Your task to perform on an android device: turn off picture-in-picture Image 0: 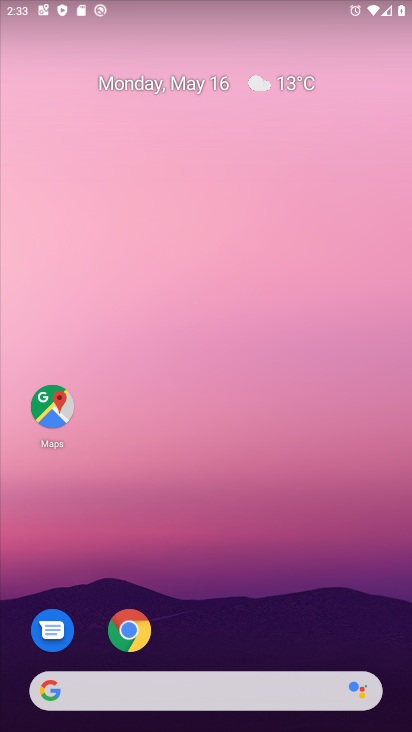
Step 0: drag from (216, 584) to (216, 143)
Your task to perform on an android device: turn off picture-in-picture Image 1: 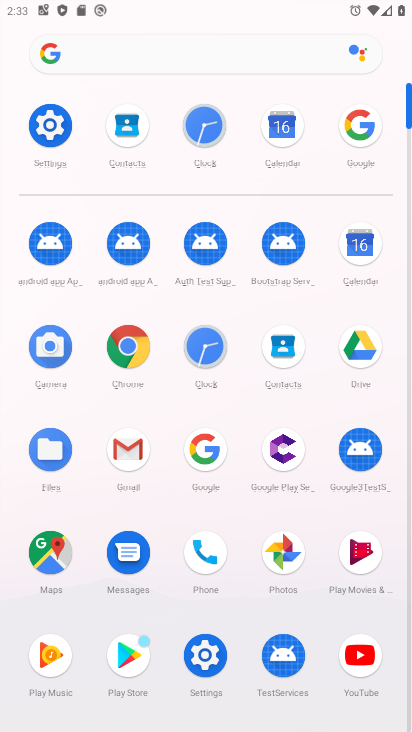
Step 1: click (46, 136)
Your task to perform on an android device: turn off picture-in-picture Image 2: 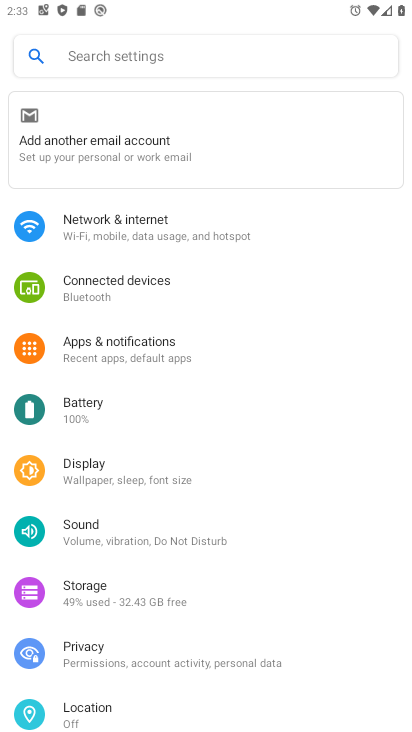
Step 2: click (125, 354)
Your task to perform on an android device: turn off picture-in-picture Image 3: 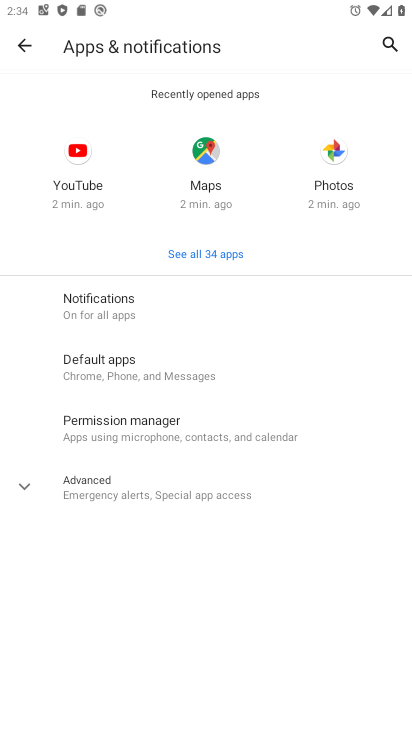
Step 3: click (119, 487)
Your task to perform on an android device: turn off picture-in-picture Image 4: 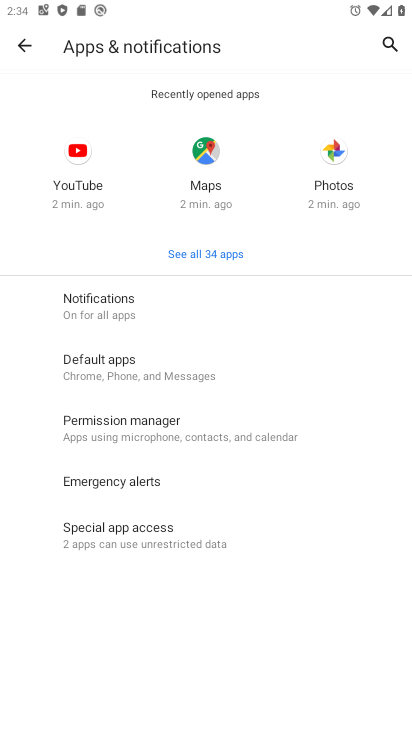
Step 4: click (145, 532)
Your task to perform on an android device: turn off picture-in-picture Image 5: 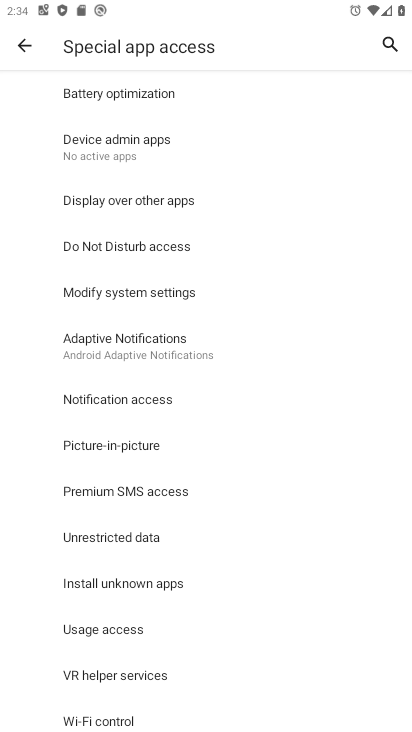
Step 5: click (136, 447)
Your task to perform on an android device: turn off picture-in-picture Image 6: 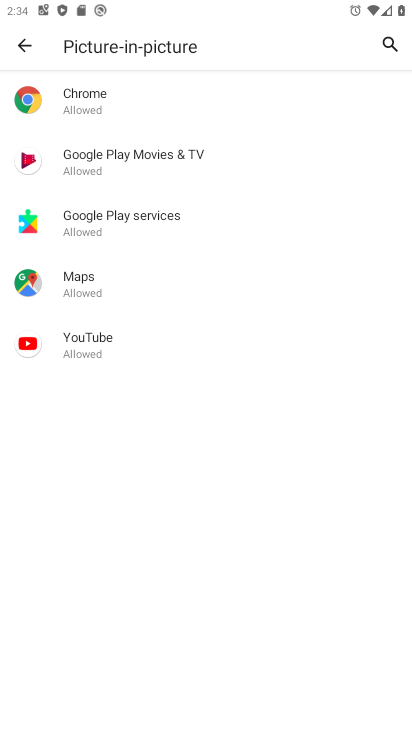
Step 6: click (99, 99)
Your task to perform on an android device: turn off picture-in-picture Image 7: 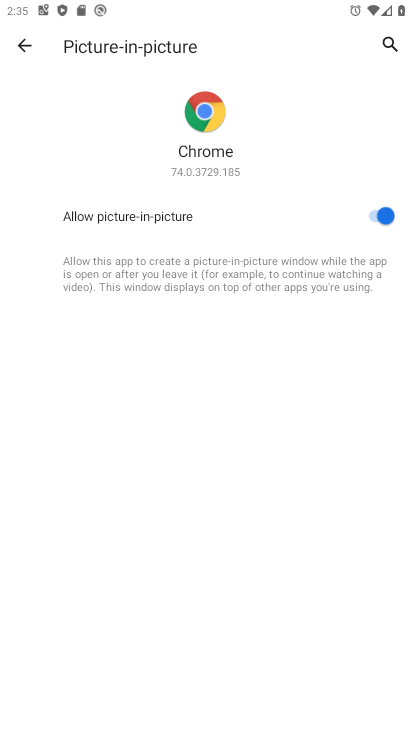
Step 7: click (375, 210)
Your task to perform on an android device: turn off picture-in-picture Image 8: 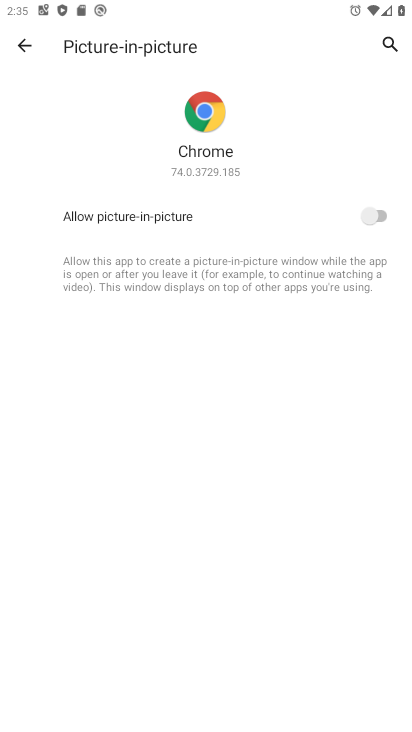
Step 8: click (21, 41)
Your task to perform on an android device: turn off picture-in-picture Image 9: 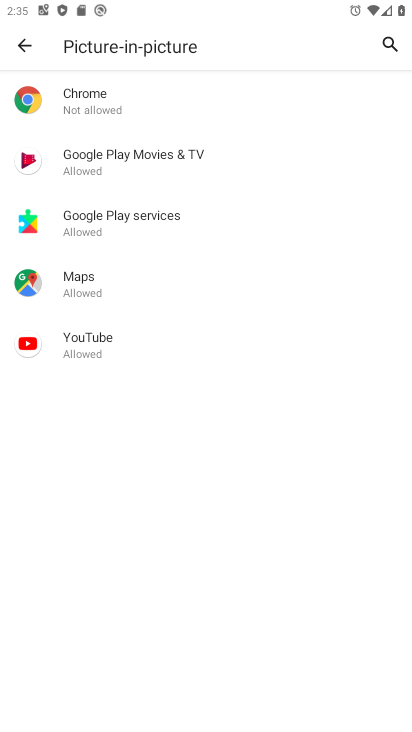
Step 9: click (138, 153)
Your task to perform on an android device: turn off picture-in-picture Image 10: 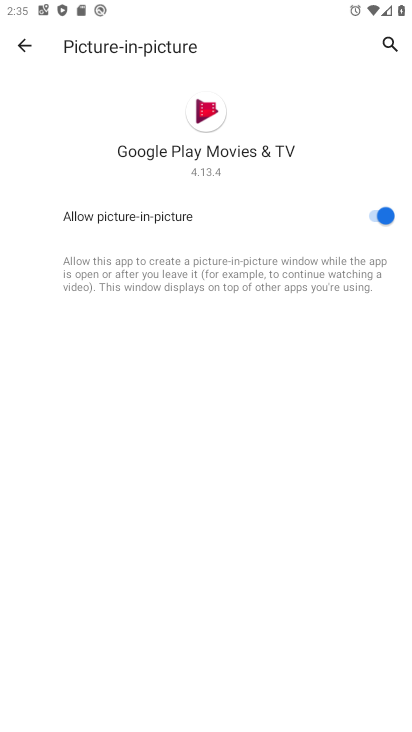
Step 10: click (372, 214)
Your task to perform on an android device: turn off picture-in-picture Image 11: 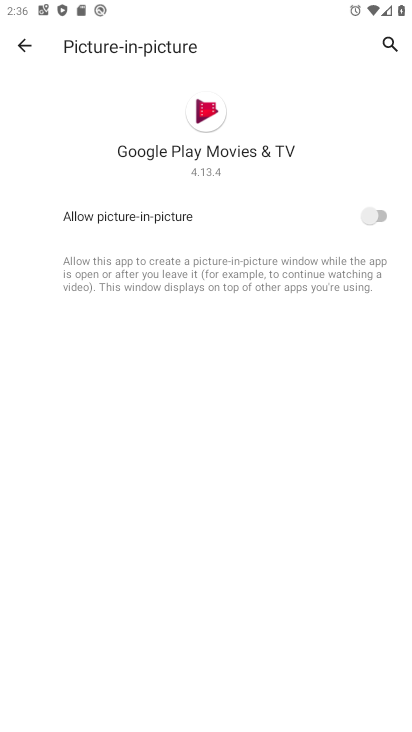
Step 11: click (20, 46)
Your task to perform on an android device: turn off picture-in-picture Image 12: 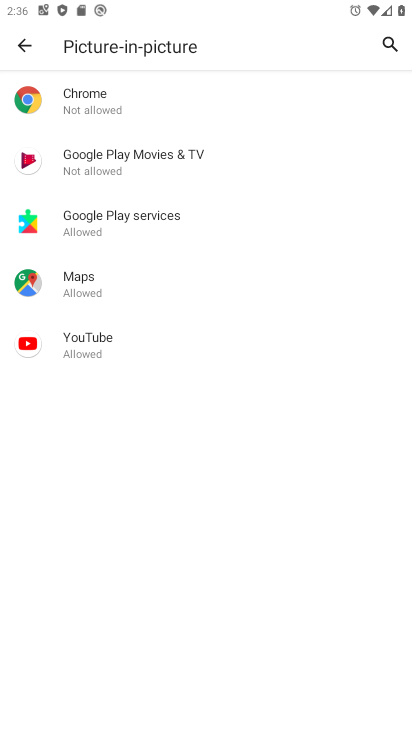
Step 12: click (161, 217)
Your task to perform on an android device: turn off picture-in-picture Image 13: 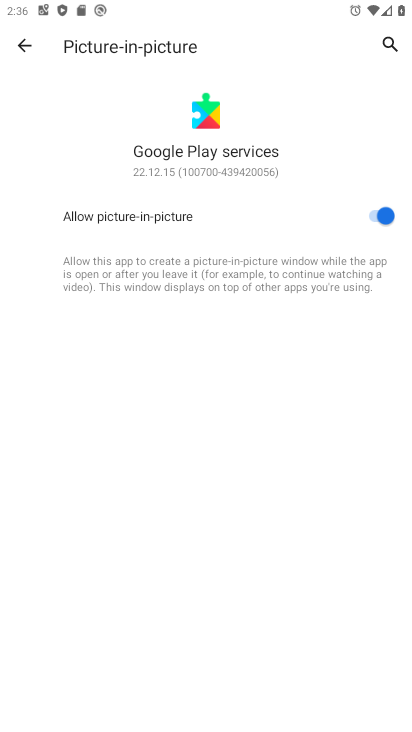
Step 13: click (371, 214)
Your task to perform on an android device: turn off picture-in-picture Image 14: 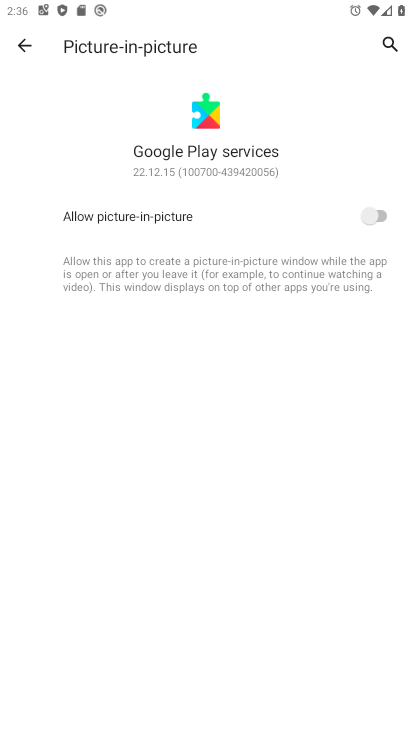
Step 14: click (19, 45)
Your task to perform on an android device: turn off picture-in-picture Image 15: 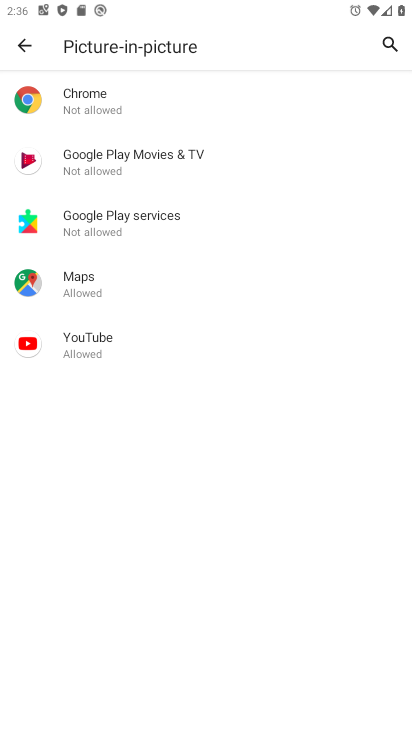
Step 15: click (93, 276)
Your task to perform on an android device: turn off picture-in-picture Image 16: 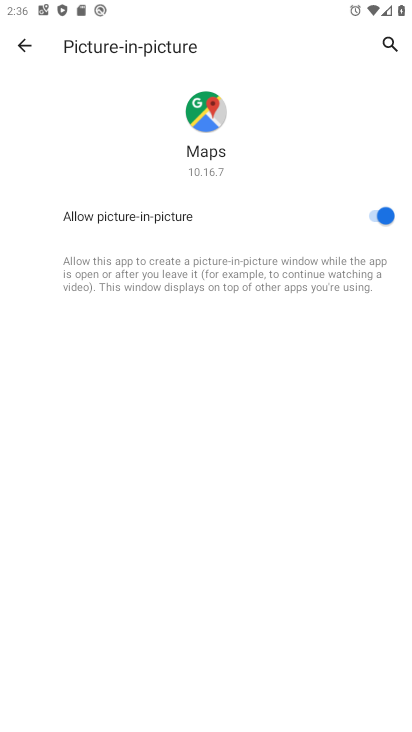
Step 16: click (378, 216)
Your task to perform on an android device: turn off picture-in-picture Image 17: 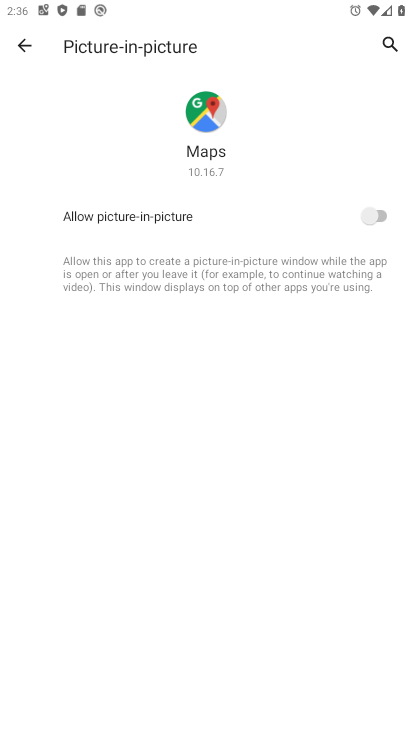
Step 17: click (21, 40)
Your task to perform on an android device: turn off picture-in-picture Image 18: 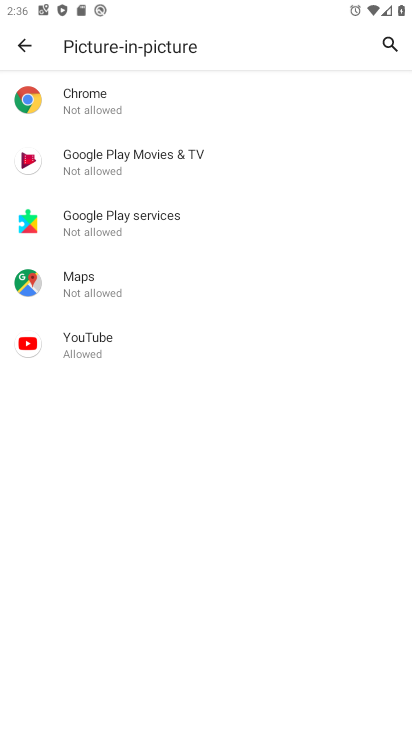
Step 18: click (89, 332)
Your task to perform on an android device: turn off picture-in-picture Image 19: 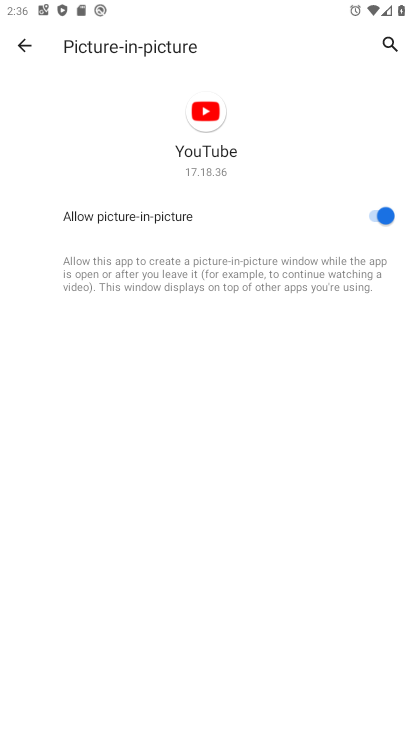
Step 19: click (378, 211)
Your task to perform on an android device: turn off picture-in-picture Image 20: 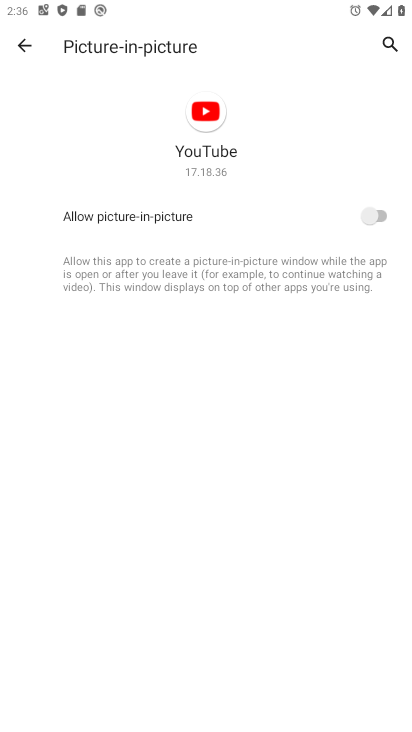
Step 20: task complete